Your task to perform on an android device: toggle translation in the chrome app Image 0: 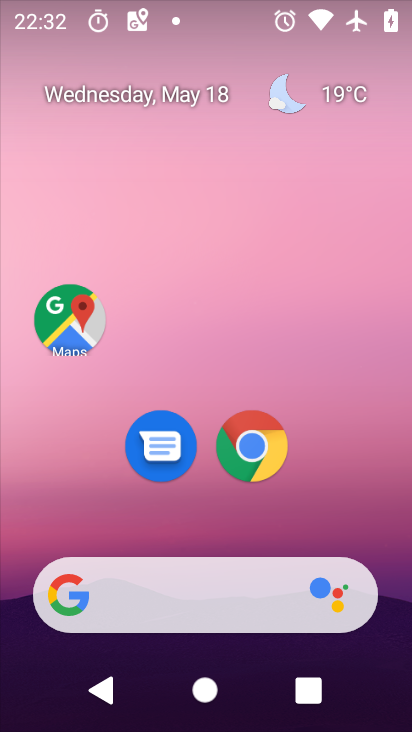
Step 0: click (262, 454)
Your task to perform on an android device: toggle translation in the chrome app Image 1: 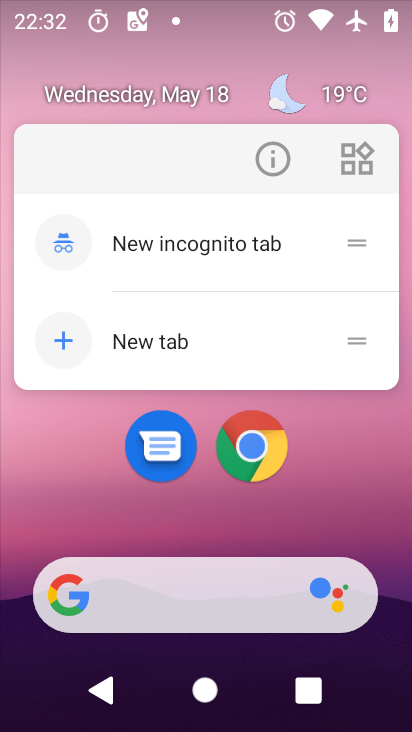
Step 1: click (254, 468)
Your task to perform on an android device: toggle translation in the chrome app Image 2: 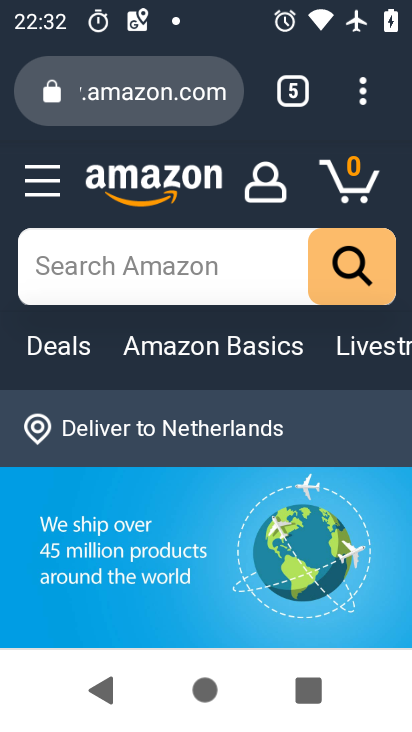
Step 2: drag from (358, 91) to (243, 452)
Your task to perform on an android device: toggle translation in the chrome app Image 3: 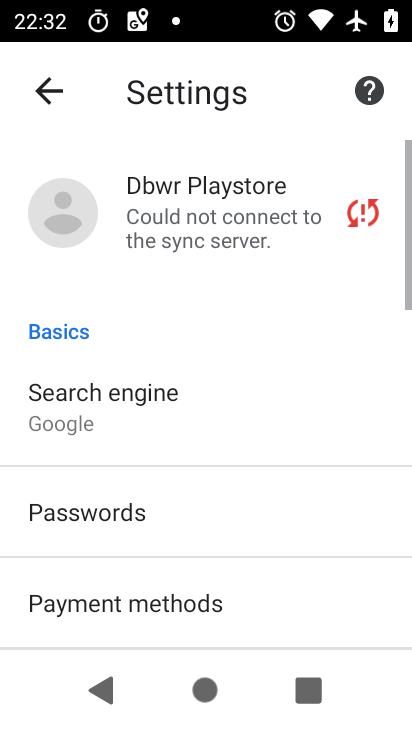
Step 3: drag from (219, 572) to (327, 237)
Your task to perform on an android device: toggle translation in the chrome app Image 4: 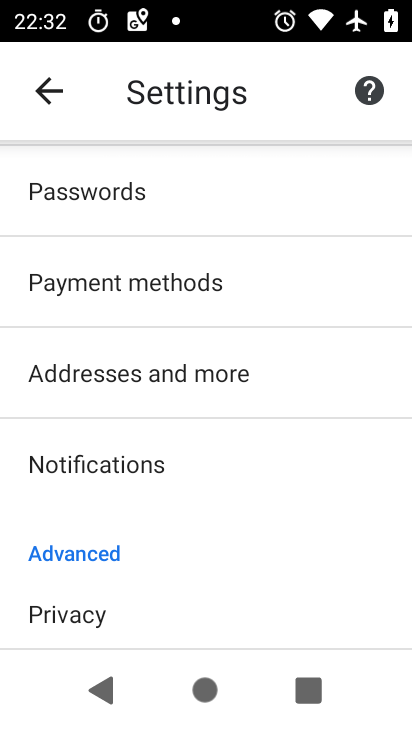
Step 4: drag from (179, 570) to (337, 18)
Your task to perform on an android device: toggle translation in the chrome app Image 5: 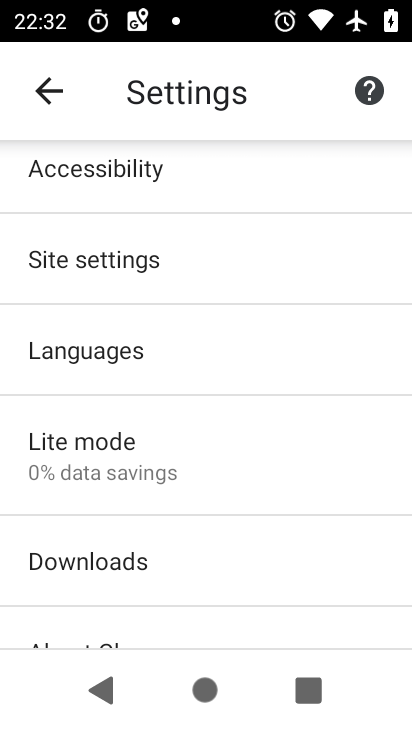
Step 5: click (133, 358)
Your task to perform on an android device: toggle translation in the chrome app Image 6: 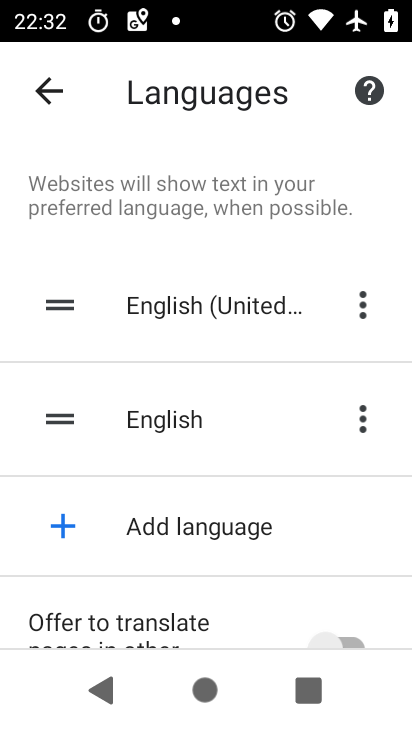
Step 6: drag from (286, 601) to (381, 160)
Your task to perform on an android device: toggle translation in the chrome app Image 7: 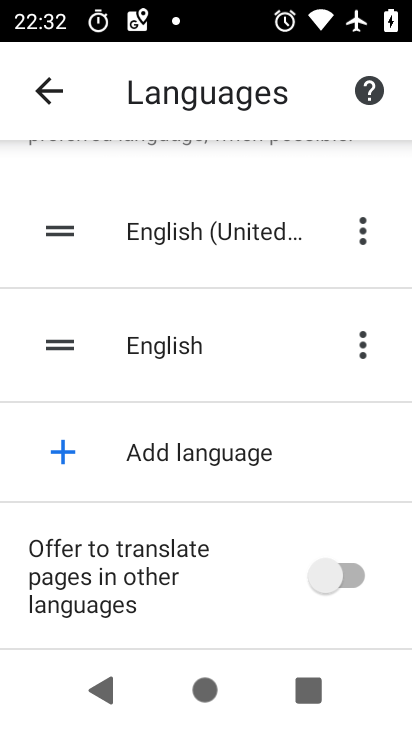
Step 7: click (348, 568)
Your task to perform on an android device: toggle translation in the chrome app Image 8: 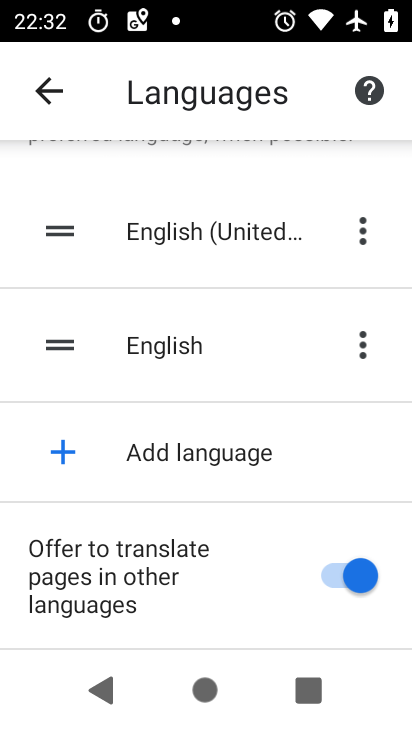
Step 8: task complete